Your task to perform on an android device: toggle translation in the chrome app Image 0: 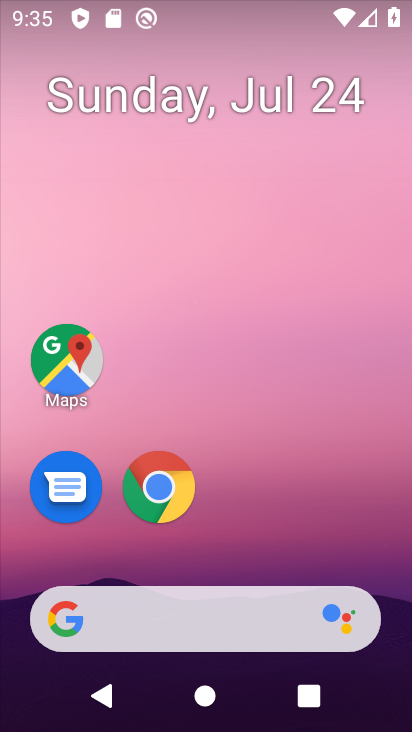
Step 0: click (149, 471)
Your task to perform on an android device: toggle translation in the chrome app Image 1: 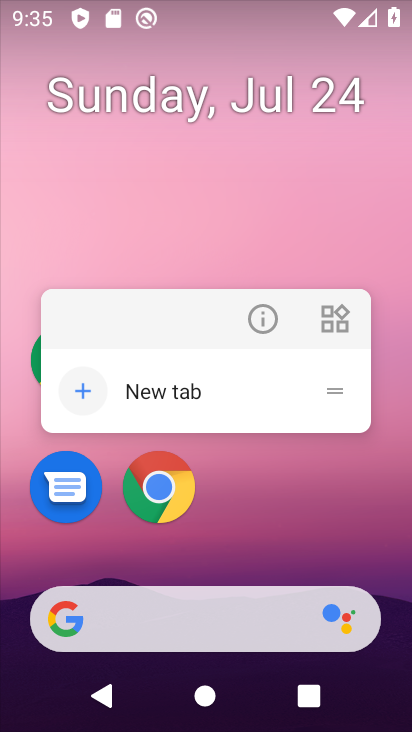
Step 1: click (156, 491)
Your task to perform on an android device: toggle translation in the chrome app Image 2: 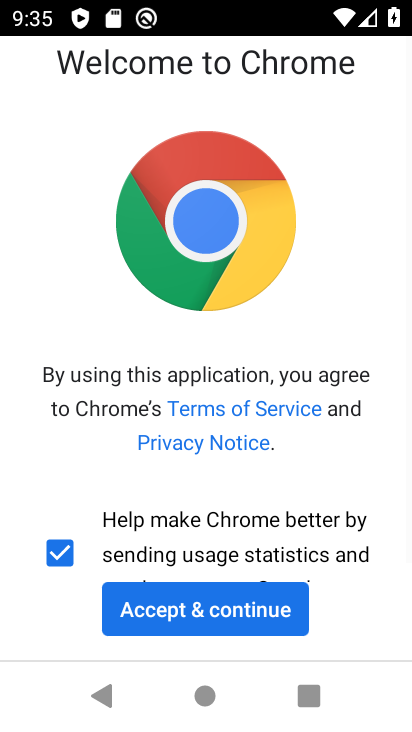
Step 2: click (215, 627)
Your task to perform on an android device: toggle translation in the chrome app Image 3: 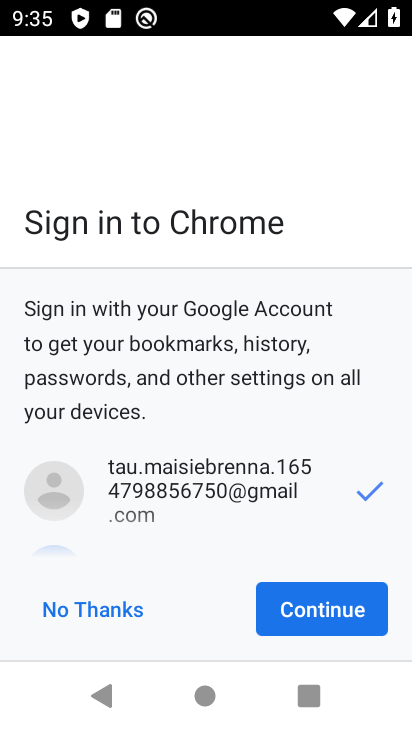
Step 3: click (305, 605)
Your task to perform on an android device: toggle translation in the chrome app Image 4: 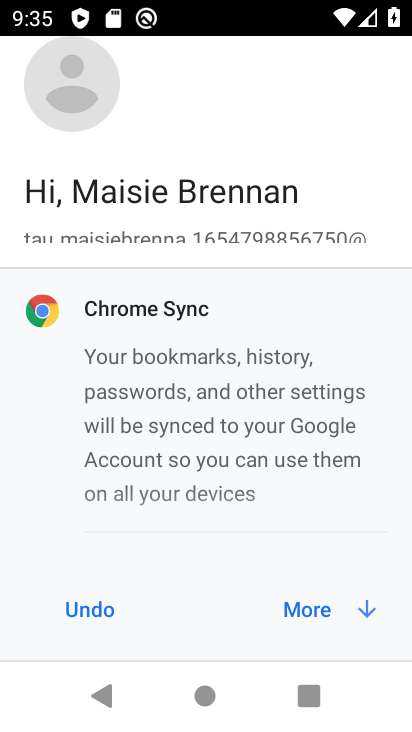
Step 4: click (305, 605)
Your task to perform on an android device: toggle translation in the chrome app Image 5: 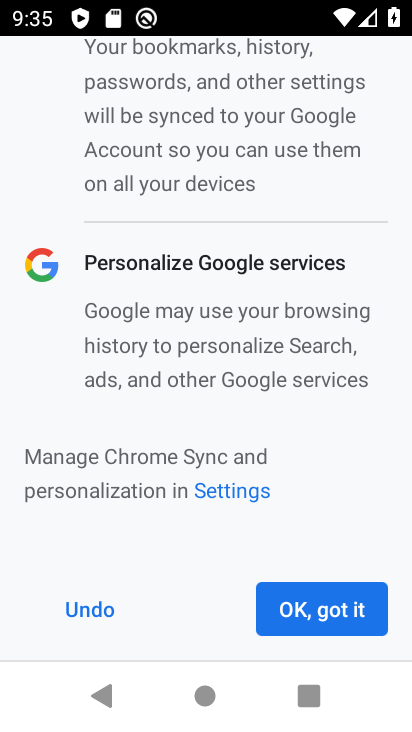
Step 5: click (305, 605)
Your task to perform on an android device: toggle translation in the chrome app Image 6: 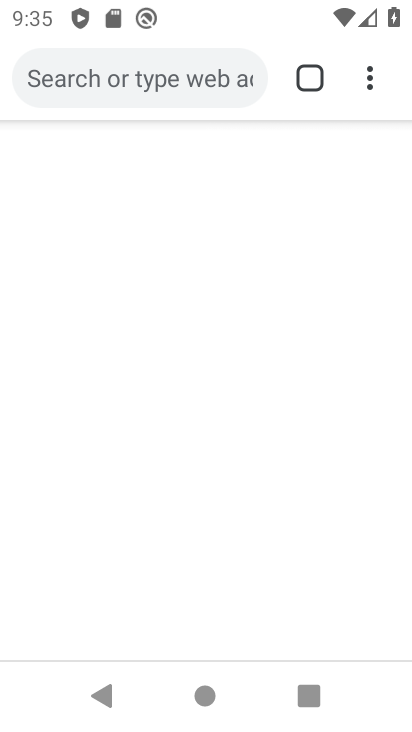
Step 6: drag from (360, 72) to (108, 555)
Your task to perform on an android device: toggle translation in the chrome app Image 7: 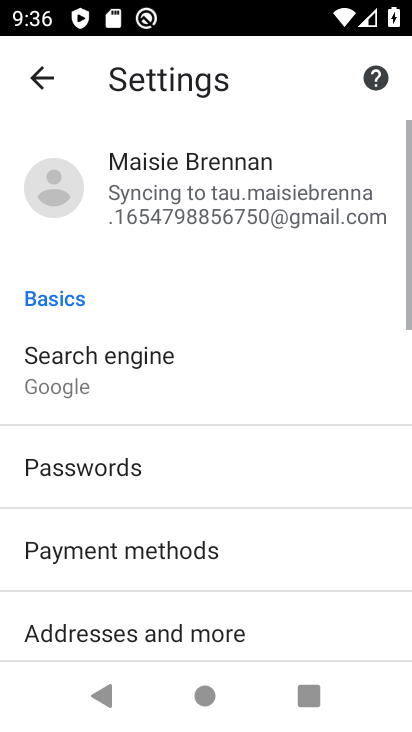
Step 7: drag from (123, 616) to (288, 22)
Your task to perform on an android device: toggle translation in the chrome app Image 8: 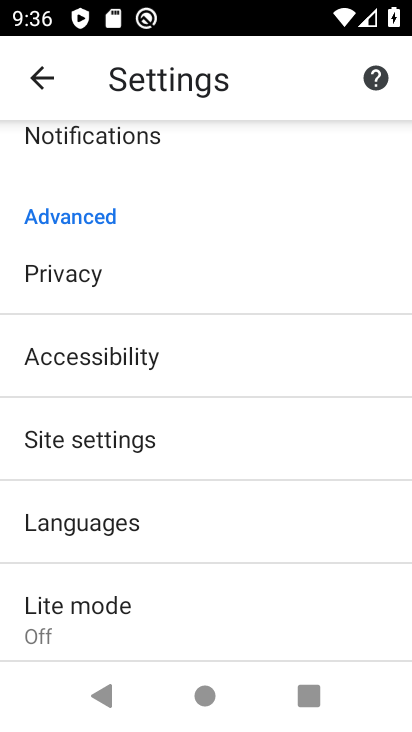
Step 8: click (90, 531)
Your task to perform on an android device: toggle translation in the chrome app Image 9: 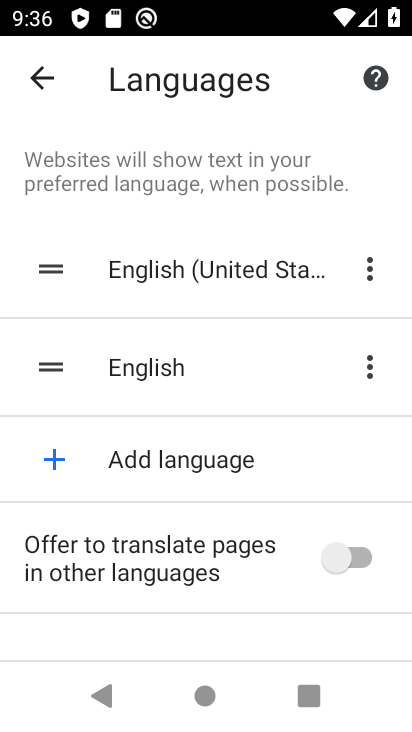
Step 9: click (335, 551)
Your task to perform on an android device: toggle translation in the chrome app Image 10: 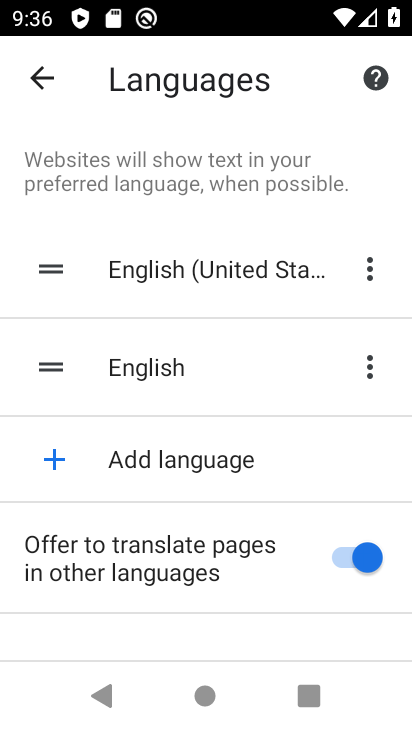
Step 10: task complete